Your task to perform on an android device: Do I have any events this weekend? Image 0: 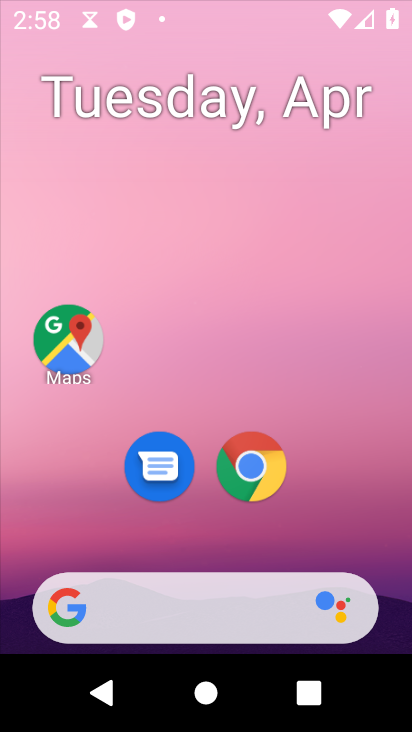
Step 0: drag from (350, 499) to (190, 0)
Your task to perform on an android device: Do I have any events this weekend? Image 1: 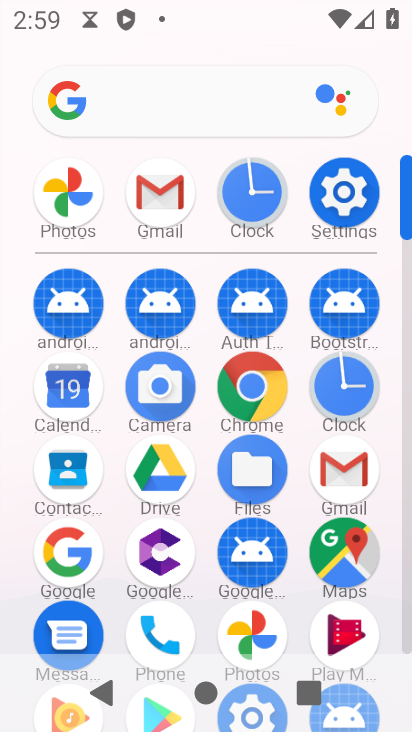
Step 1: drag from (10, 577) to (3, 326)
Your task to perform on an android device: Do I have any events this weekend? Image 2: 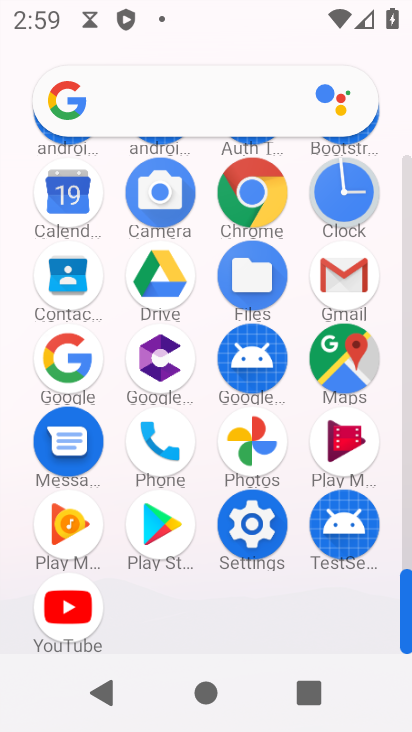
Step 2: click (69, 186)
Your task to perform on an android device: Do I have any events this weekend? Image 3: 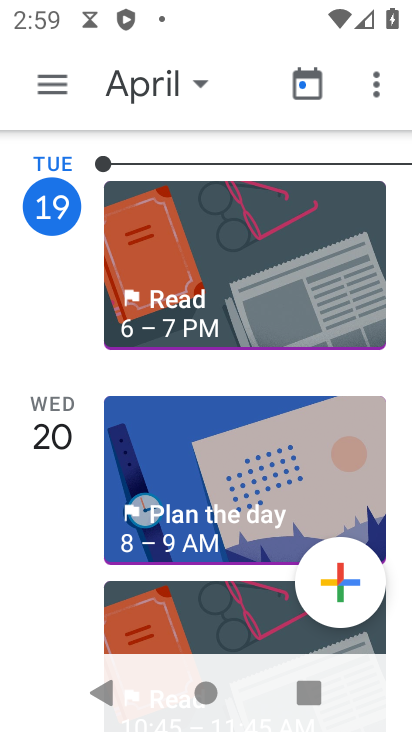
Step 3: click (44, 93)
Your task to perform on an android device: Do I have any events this weekend? Image 4: 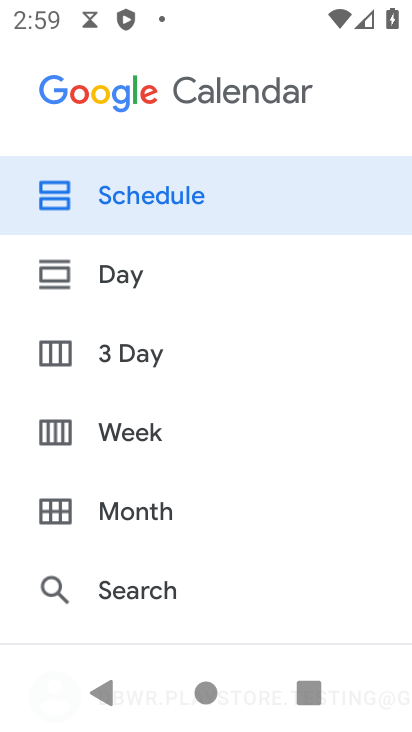
Step 4: click (151, 419)
Your task to perform on an android device: Do I have any events this weekend? Image 5: 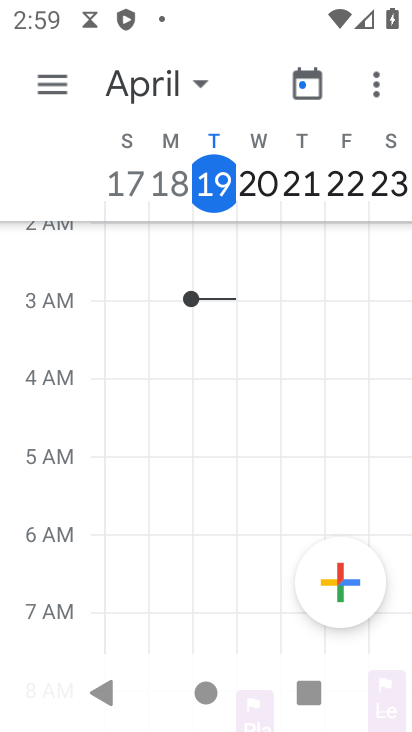
Step 5: task complete